Your task to perform on an android device: turn off data saver in the chrome app Image 0: 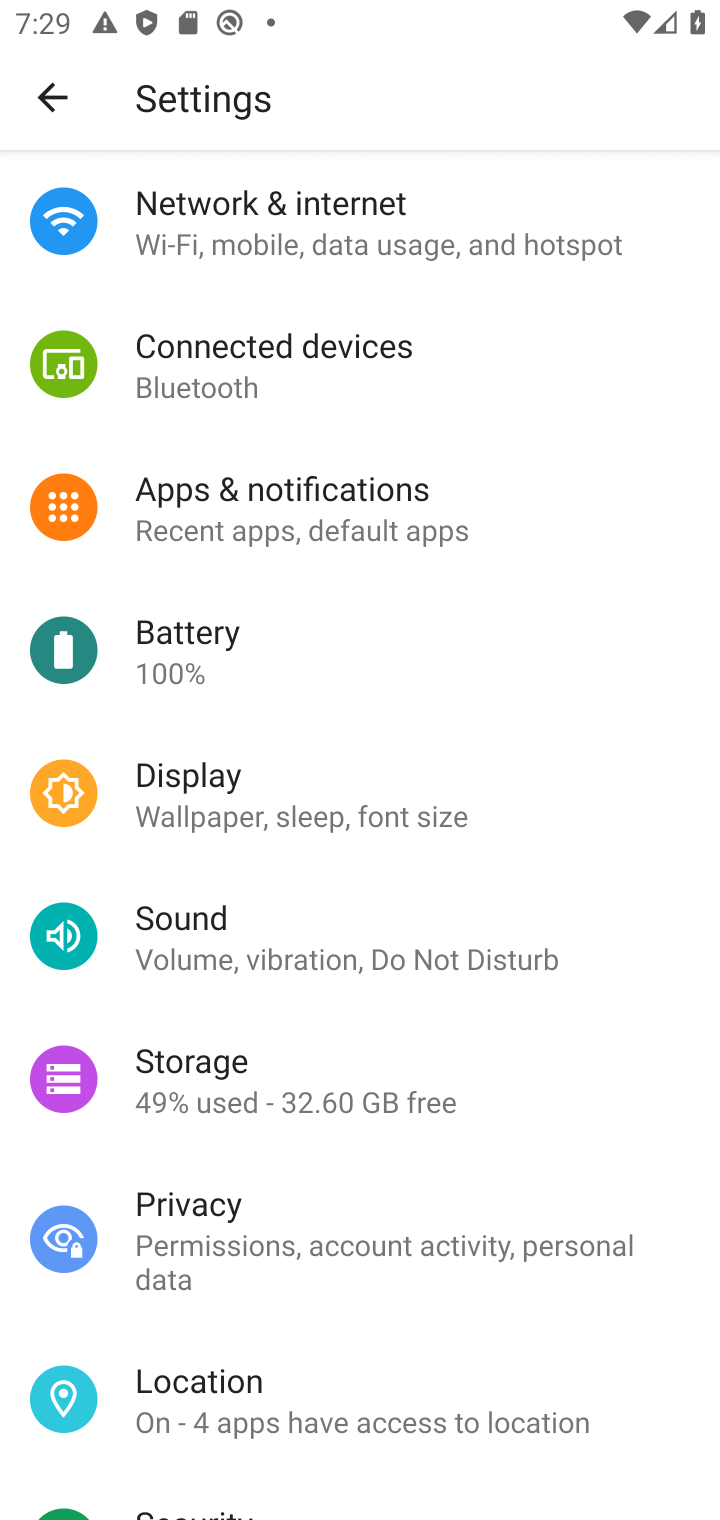
Step 0: press home button
Your task to perform on an android device: turn off data saver in the chrome app Image 1: 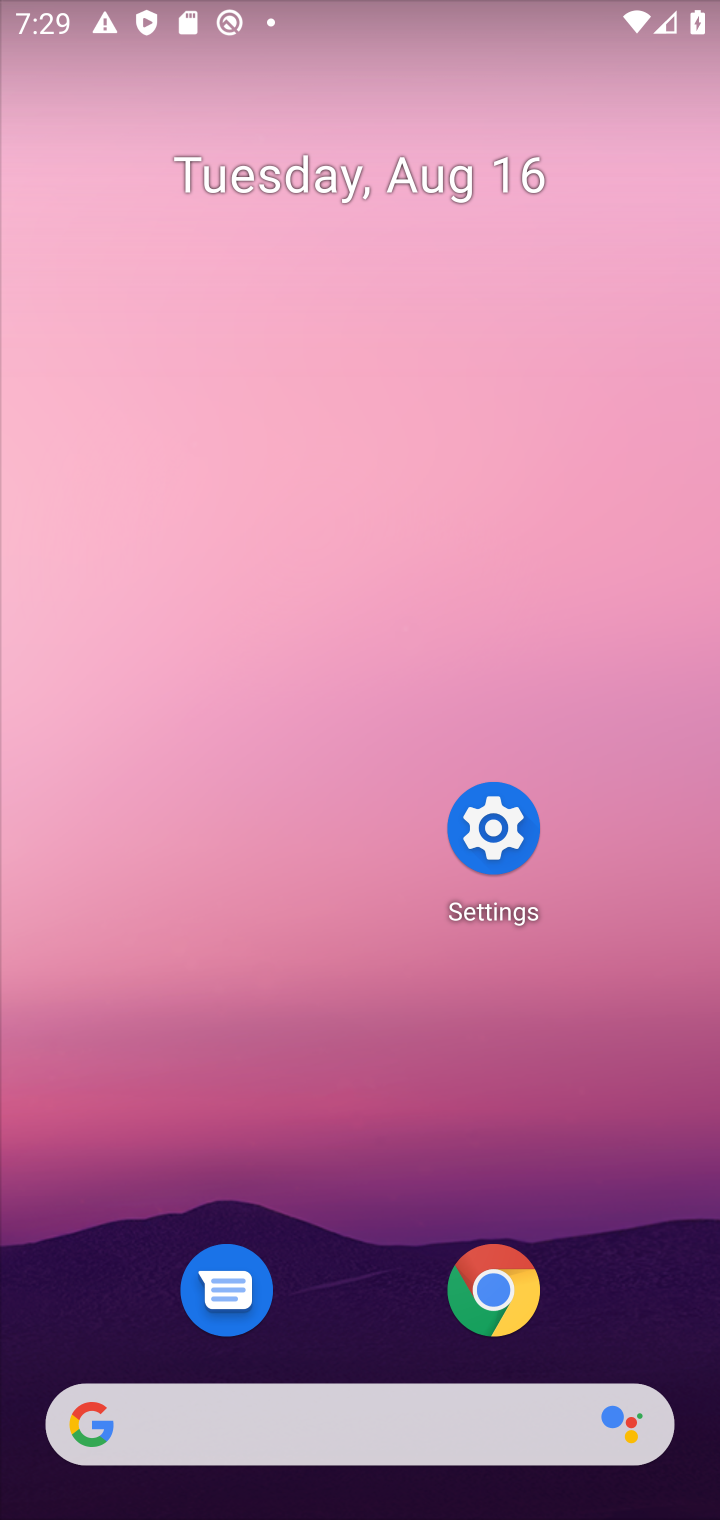
Step 1: click (487, 1279)
Your task to perform on an android device: turn off data saver in the chrome app Image 2: 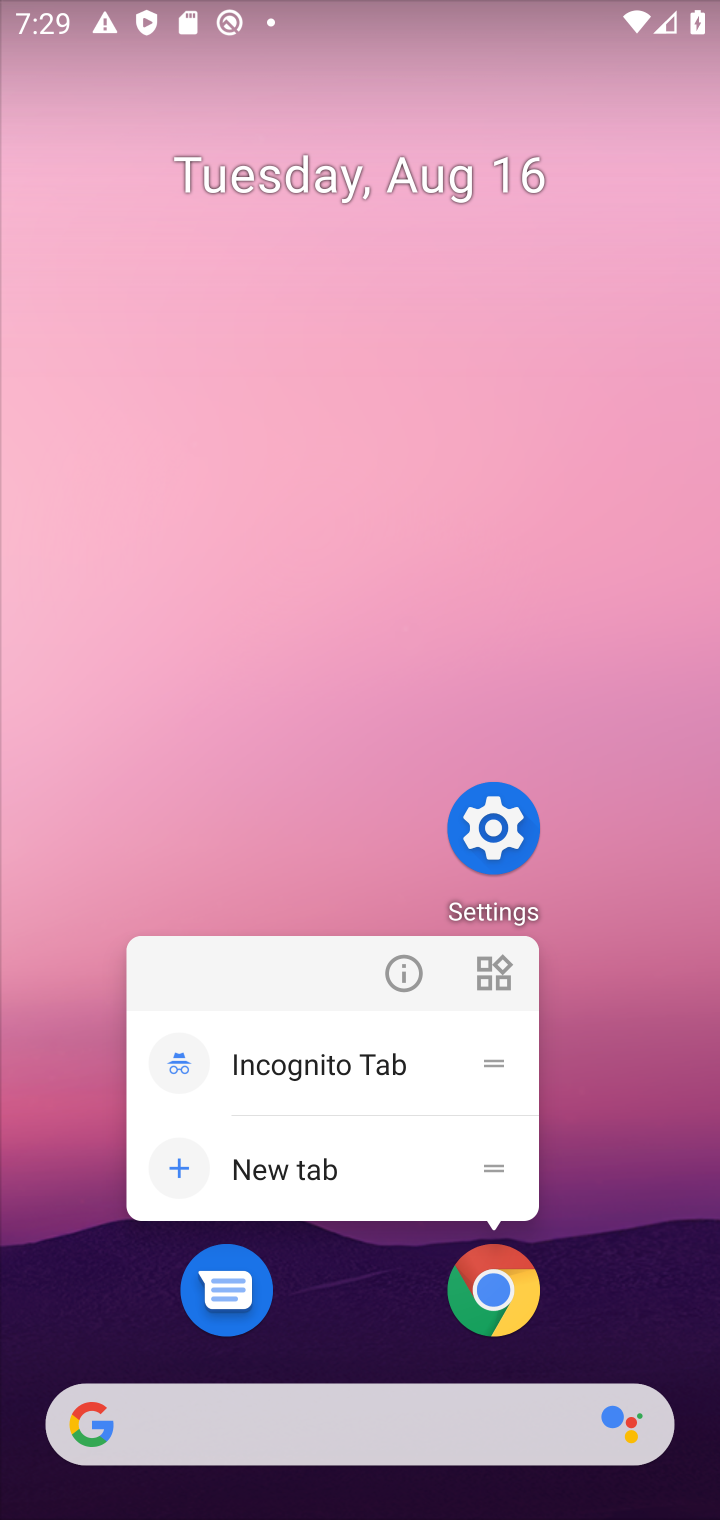
Step 2: click (491, 1270)
Your task to perform on an android device: turn off data saver in the chrome app Image 3: 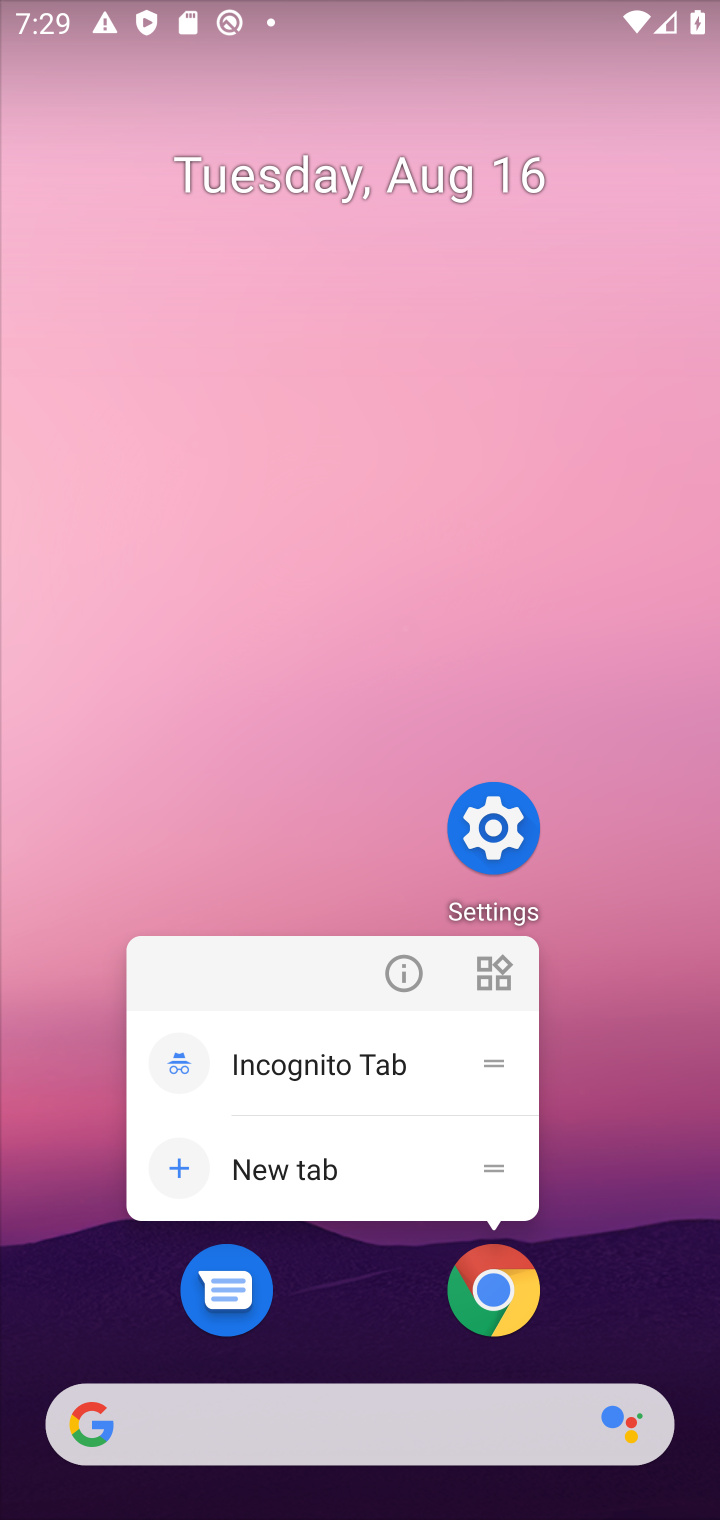
Step 3: click (508, 1292)
Your task to perform on an android device: turn off data saver in the chrome app Image 4: 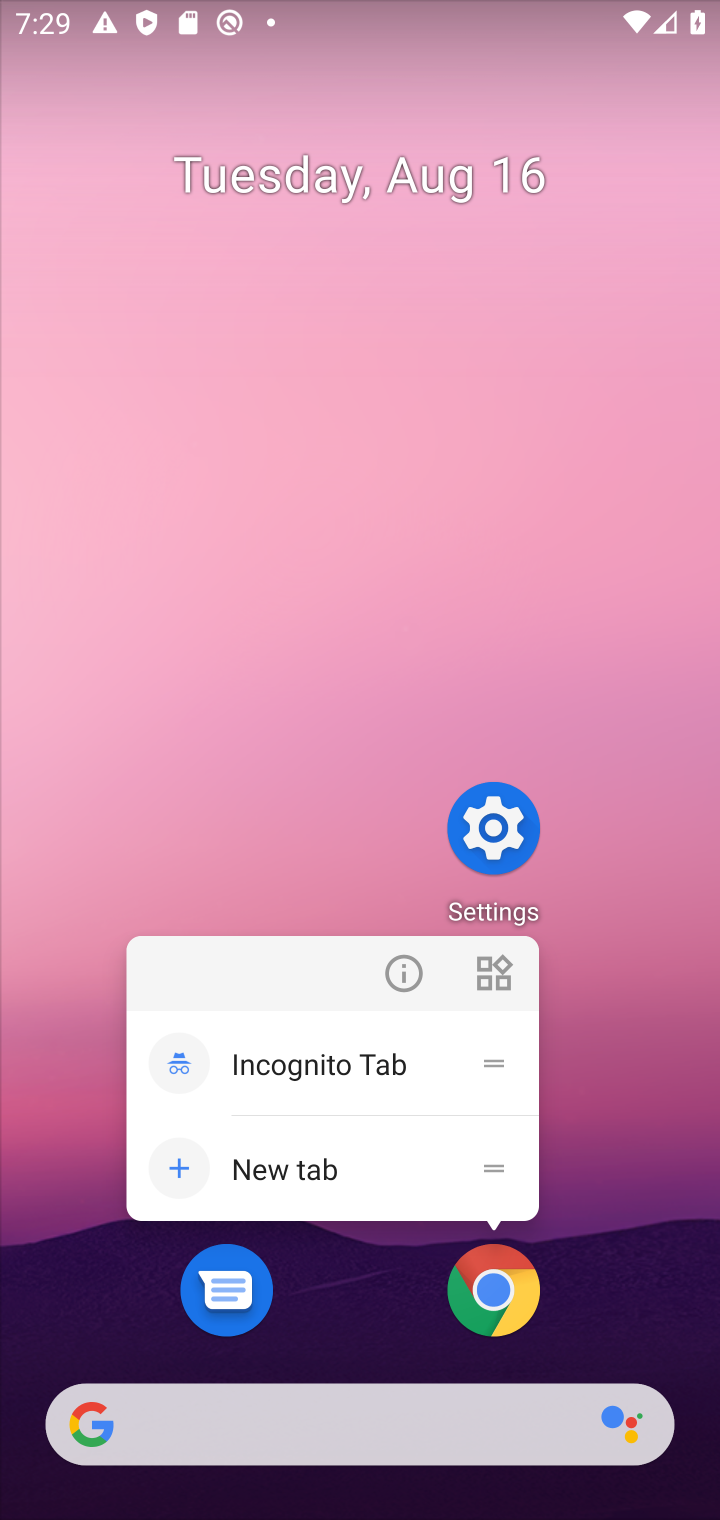
Step 4: click (507, 1305)
Your task to perform on an android device: turn off data saver in the chrome app Image 5: 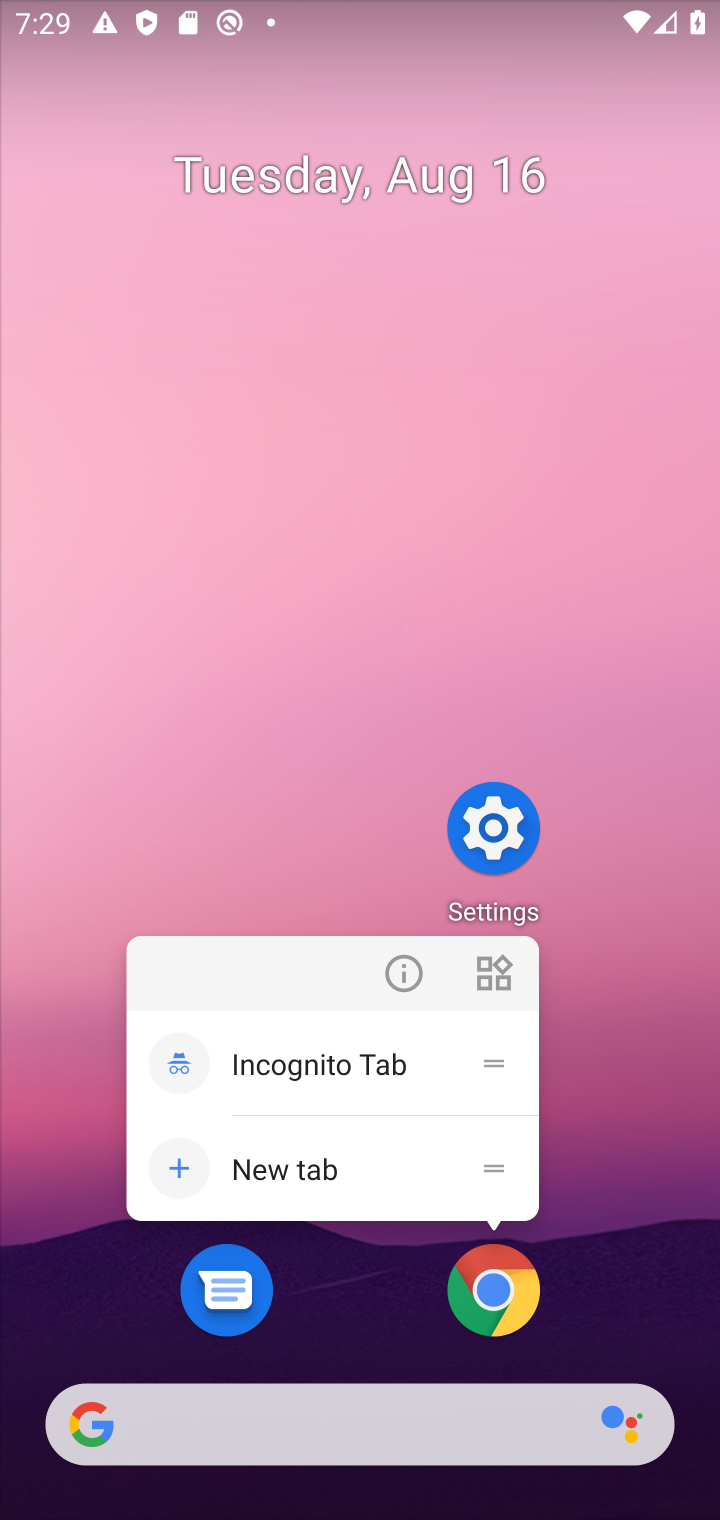
Step 5: click (505, 1293)
Your task to perform on an android device: turn off data saver in the chrome app Image 6: 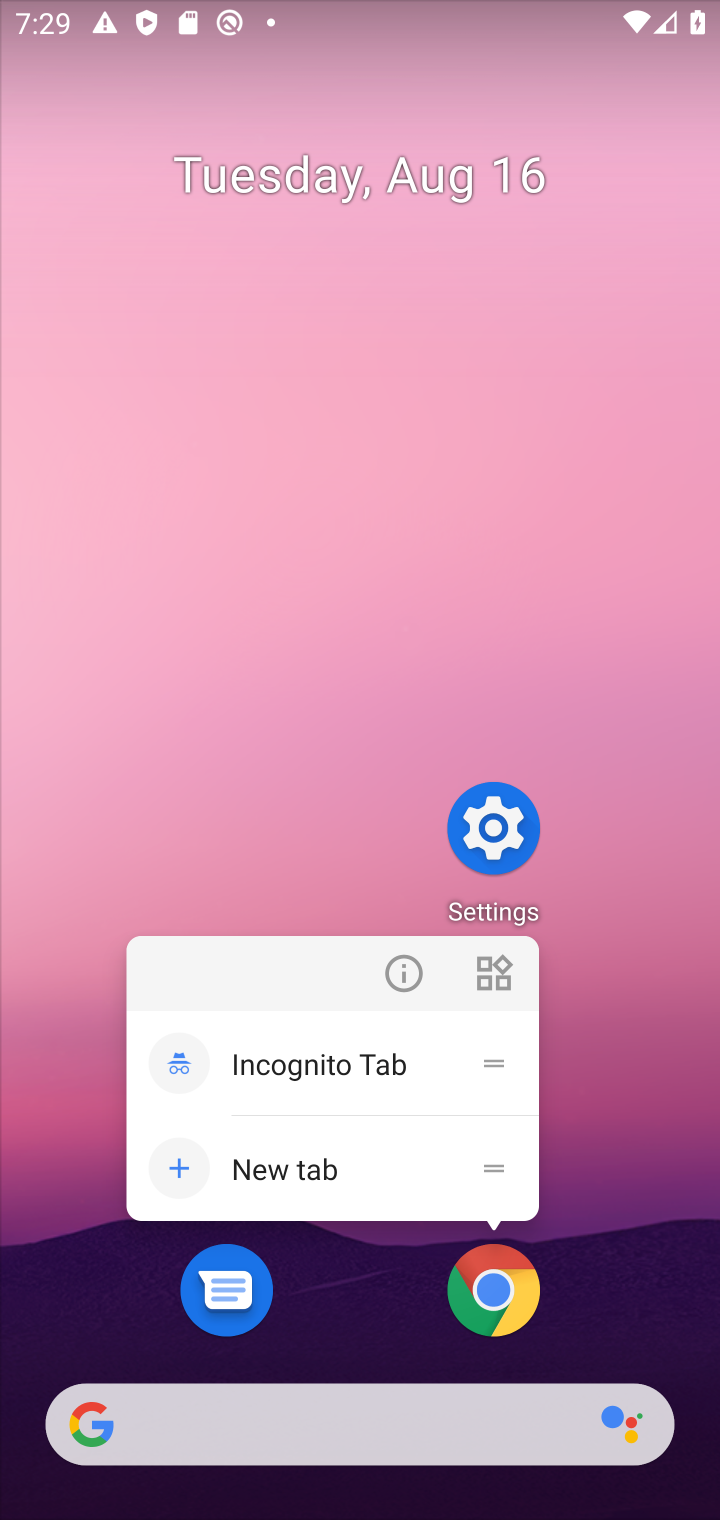
Step 6: click (484, 1311)
Your task to perform on an android device: turn off data saver in the chrome app Image 7: 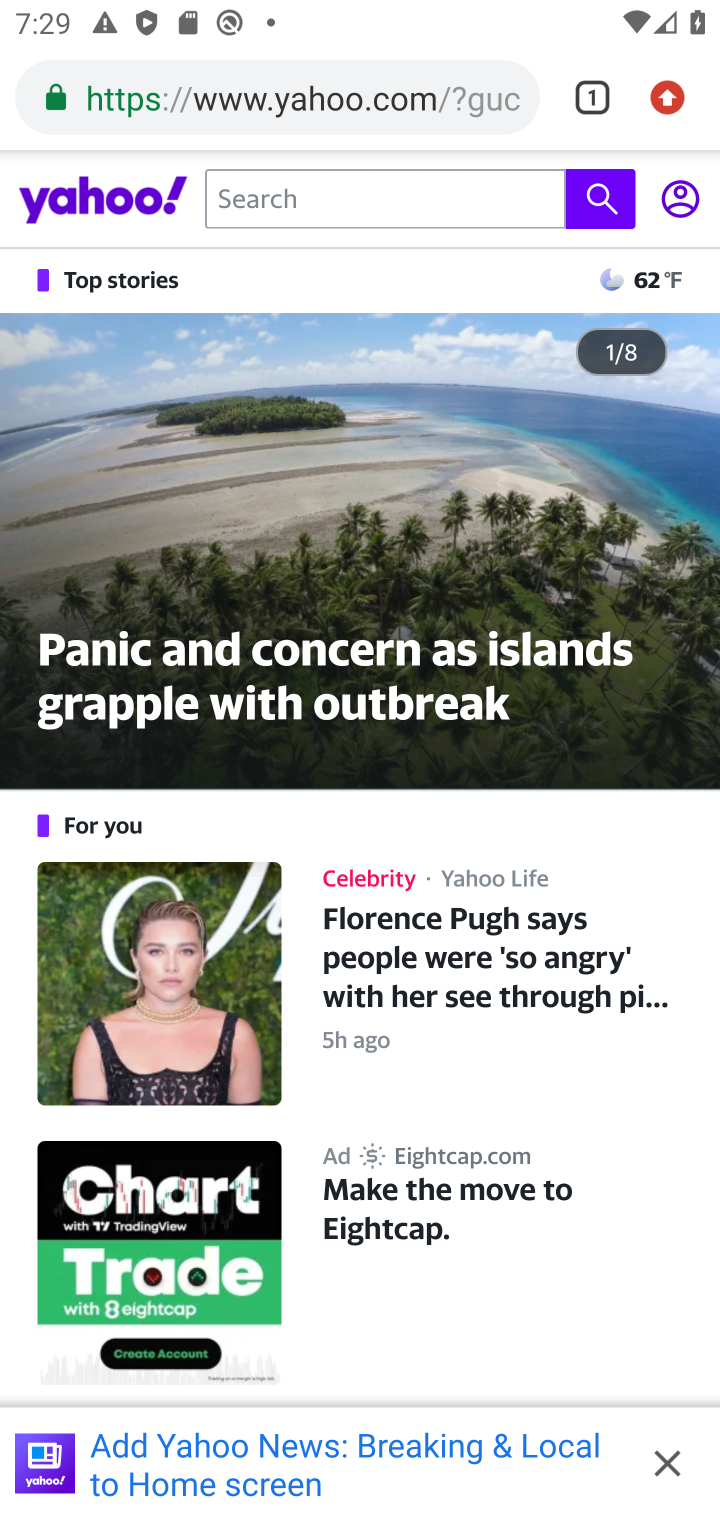
Step 7: click (673, 113)
Your task to perform on an android device: turn off data saver in the chrome app Image 8: 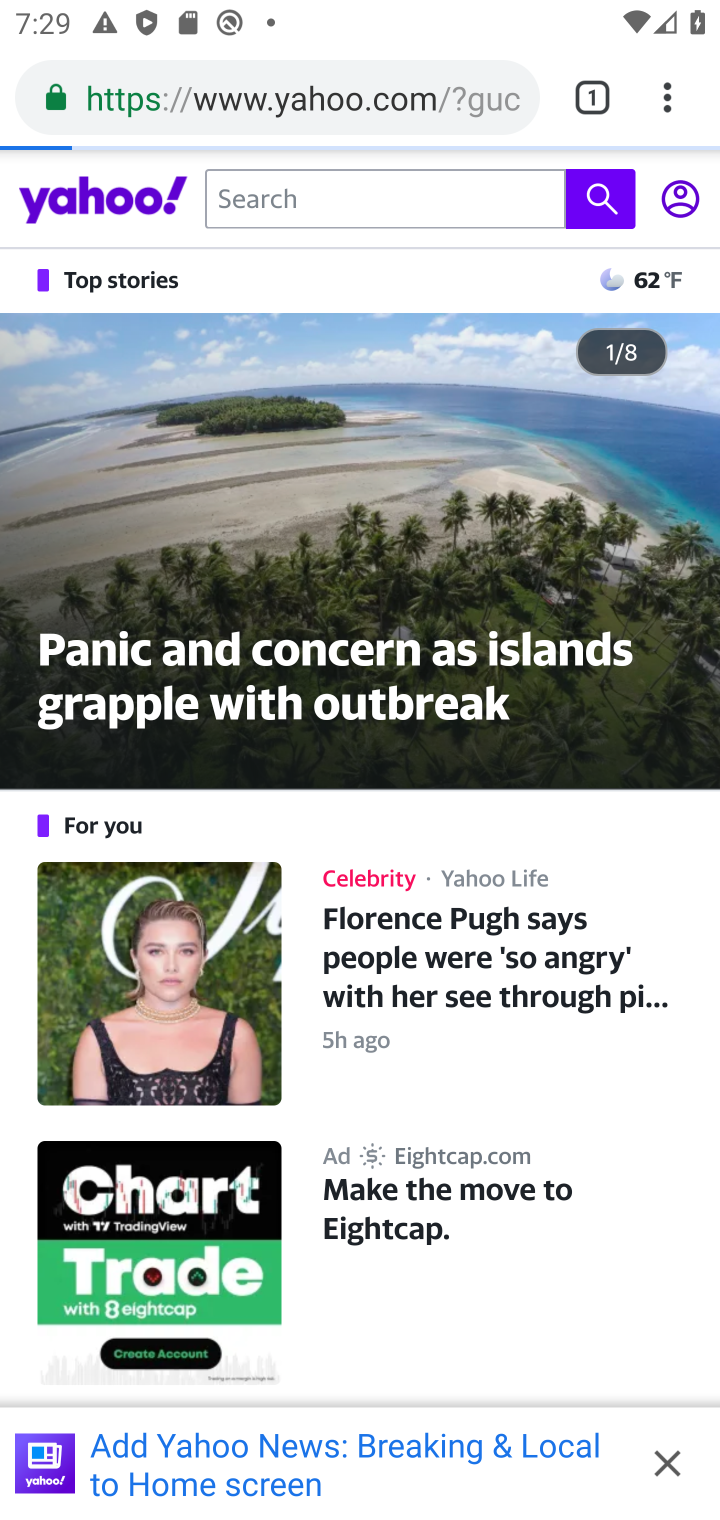
Step 8: drag from (671, 107) to (367, 1264)
Your task to perform on an android device: turn off data saver in the chrome app Image 9: 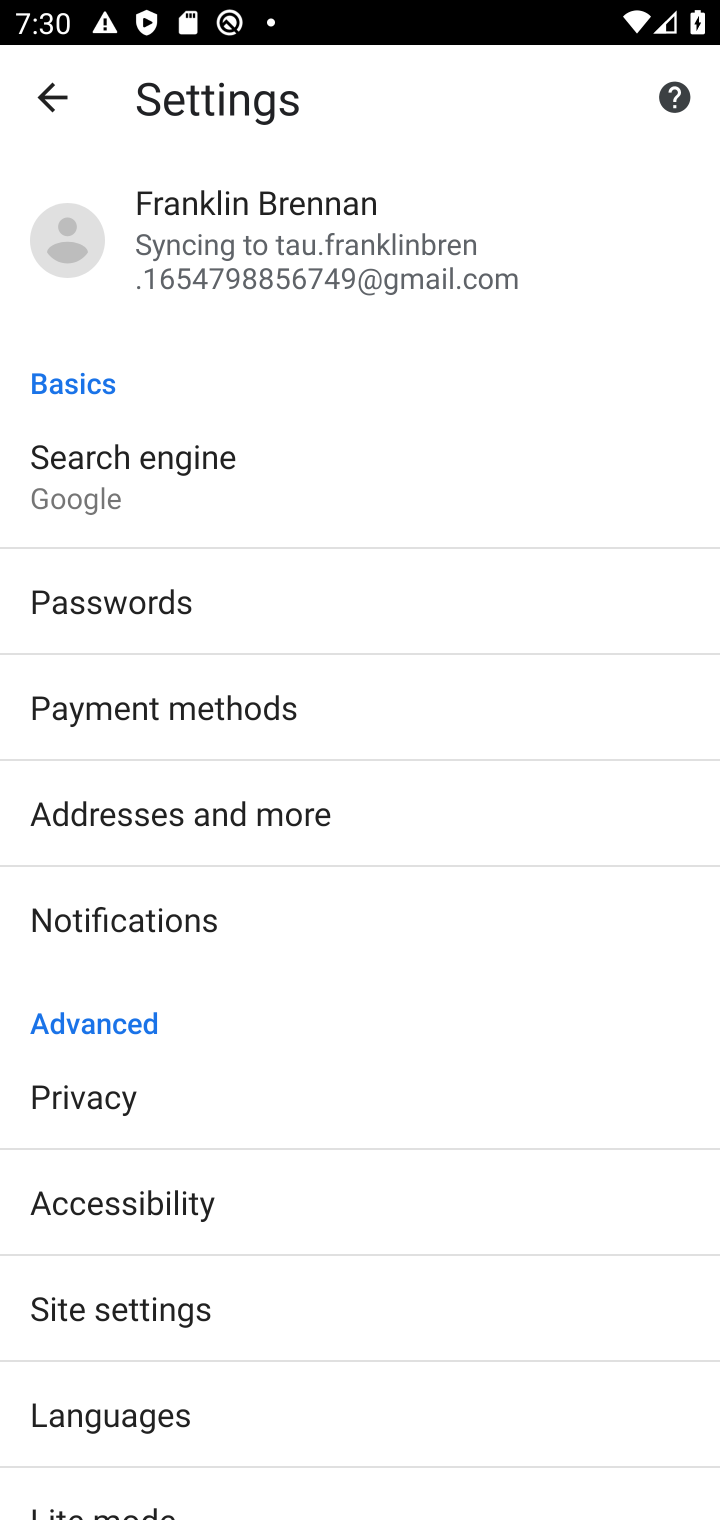
Step 9: drag from (271, 1298) to (493, 467)
Your task to perform on an android device: turn off data saver in the chrome app Image 10: 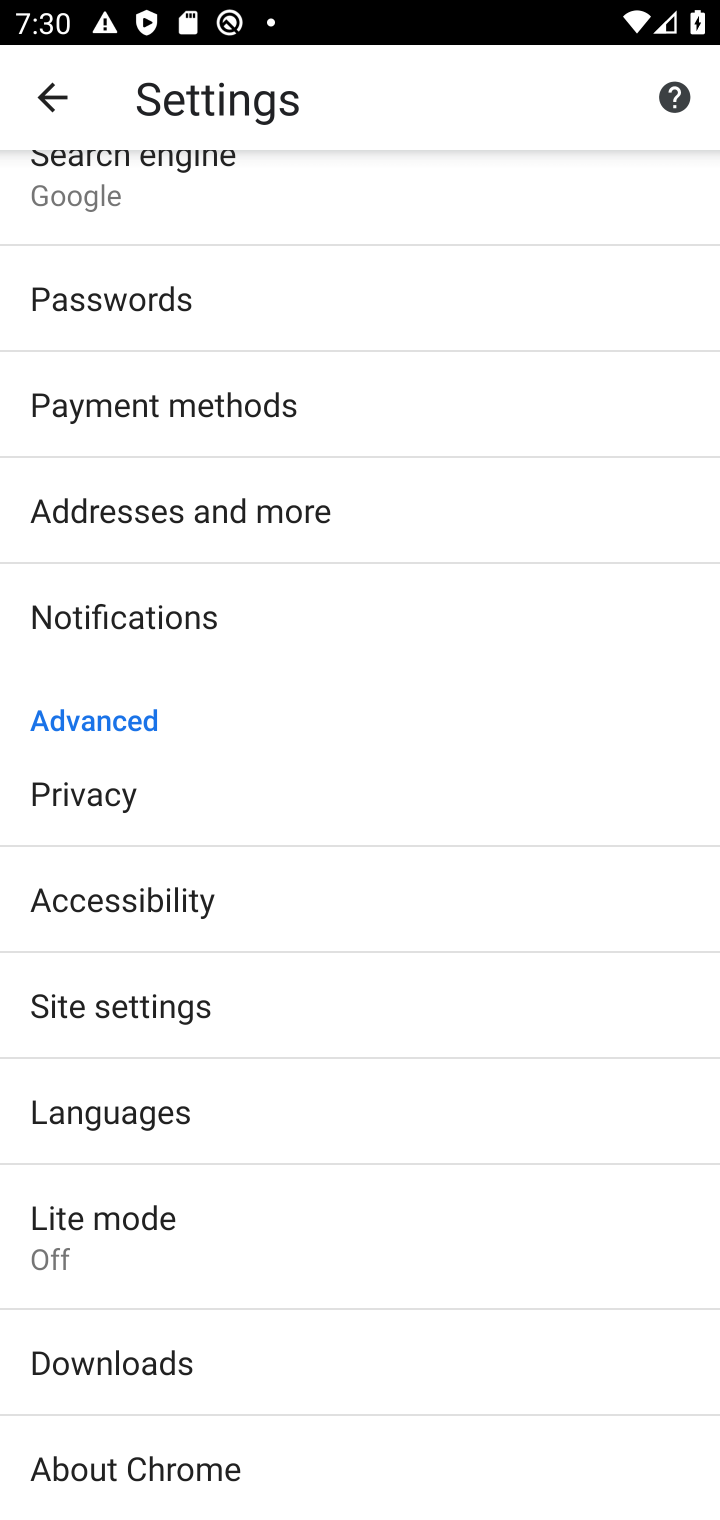
Step 10: click (123, 1223)
Your task to perform on an android device: turn off data saver in the chrome app Image 11: 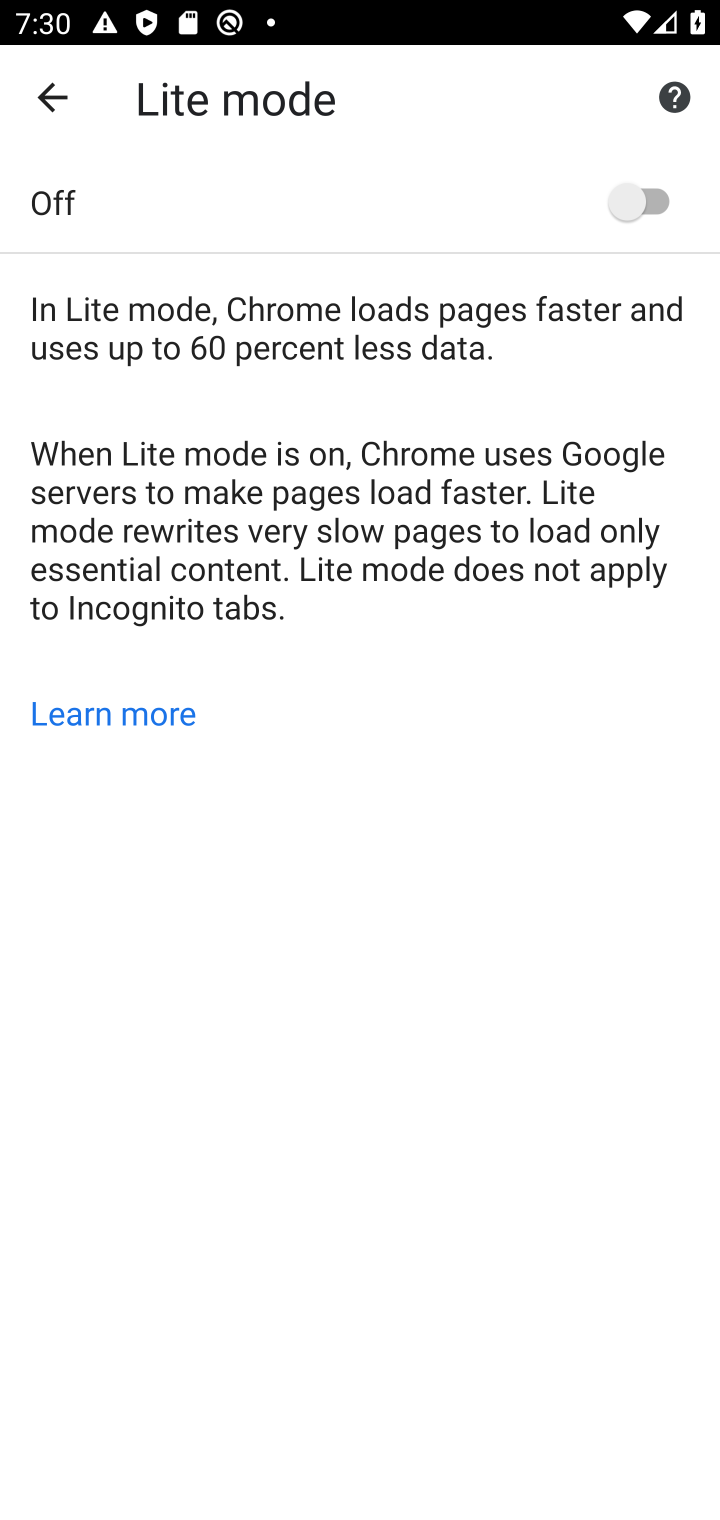
Step 11: task complete